Your task to perform on an android device: change the clock style Image 0: 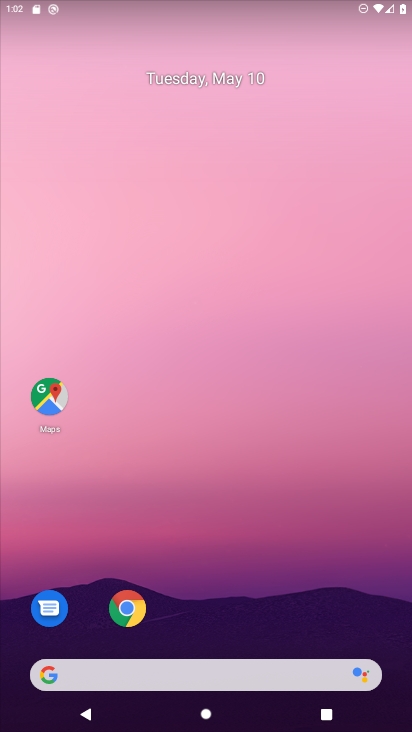
Step 0: drag from (332, 575) to (265, 222)
Your task to perform on an android device: change the clock style Image 1: 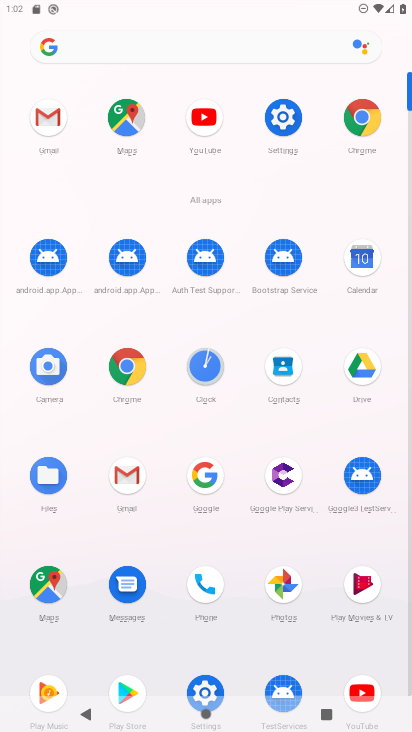
Step 1: click (205, 363)
Your task to perform on an android device: change the clock style Image 2: 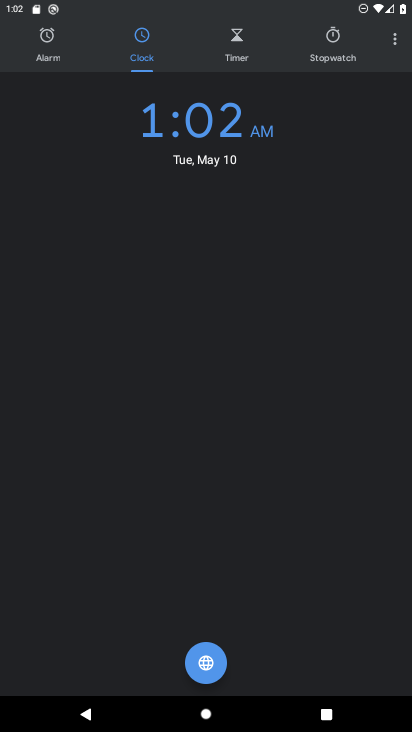
Step 2: click (391, 44)
Your task to perform on an android device: change the clock style Image 3: 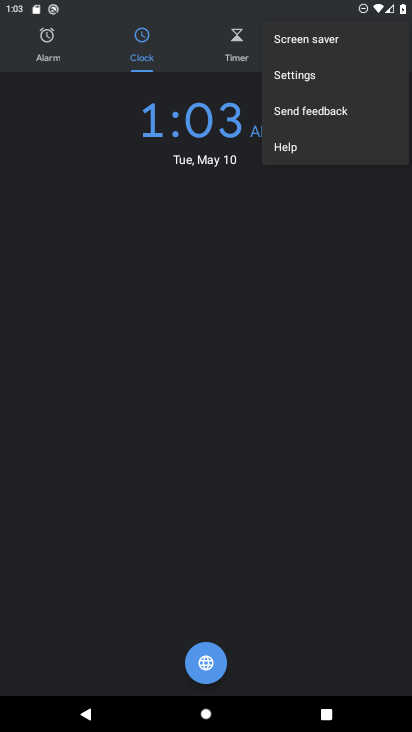
Step 3: click (288, 77)
Your task to perform on an android device: change the clock style Image 4: 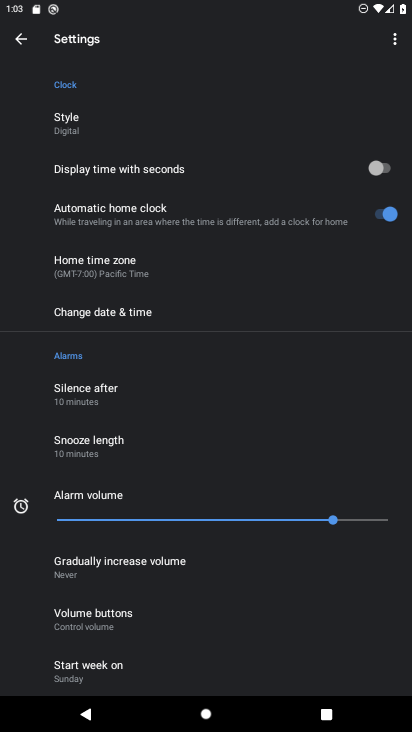
Step 4: click (83, 121)
Your task to perform on an android device: change the clock style Image 5: 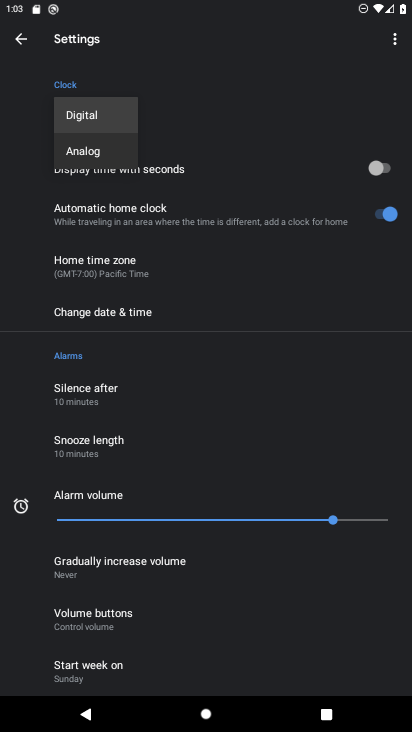
Step 5: click (103, 152)
Your task to perform on an android device: change the clock style Image 6: 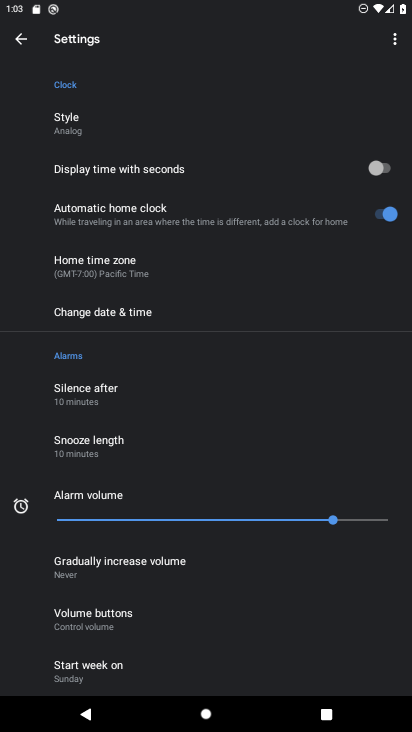
Step 6: task complete